Your task to perform on an android device: Go to Android settings Image 0: 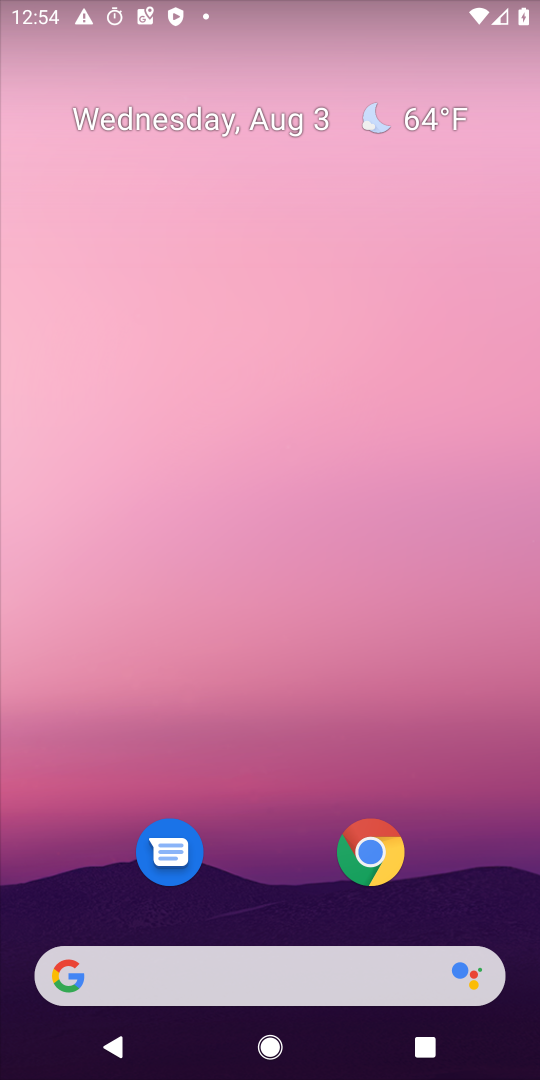
Step 0: drag from (485, 894) to (325, 101)
Your task to perform on an android device: Go to Android settings Image 1: 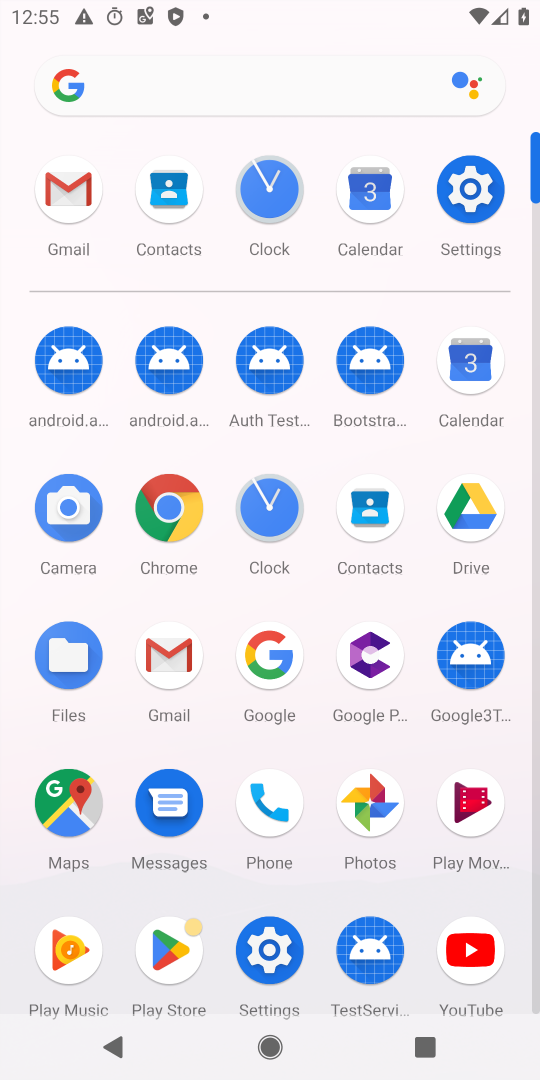
Step 1: click (257, 968)
Your task to perform on an android device: Go to Android settings Image 2: 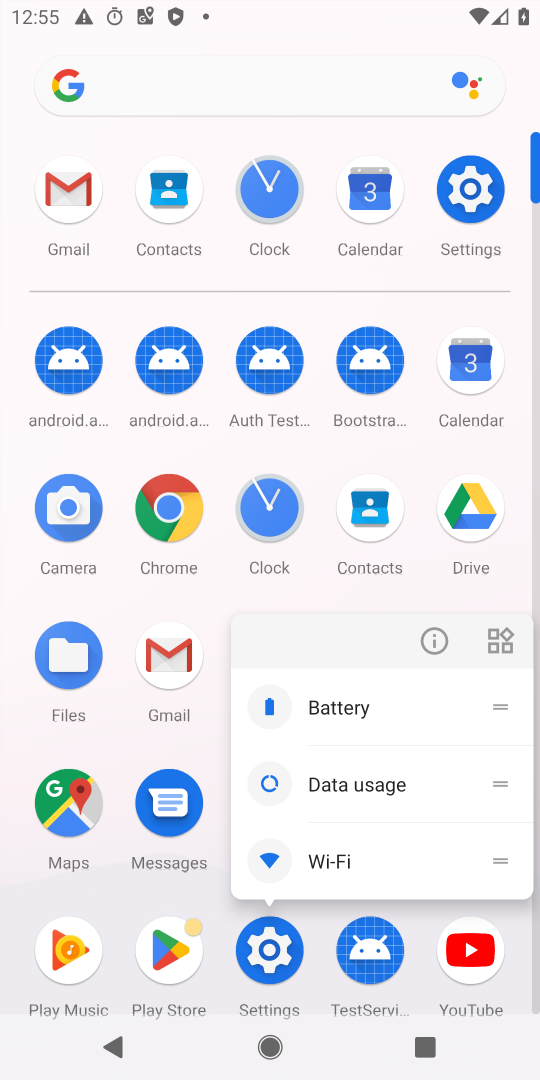
Step 2: click (235, 943)
Your task to perform on an android device: Go to Android settings Image 3: 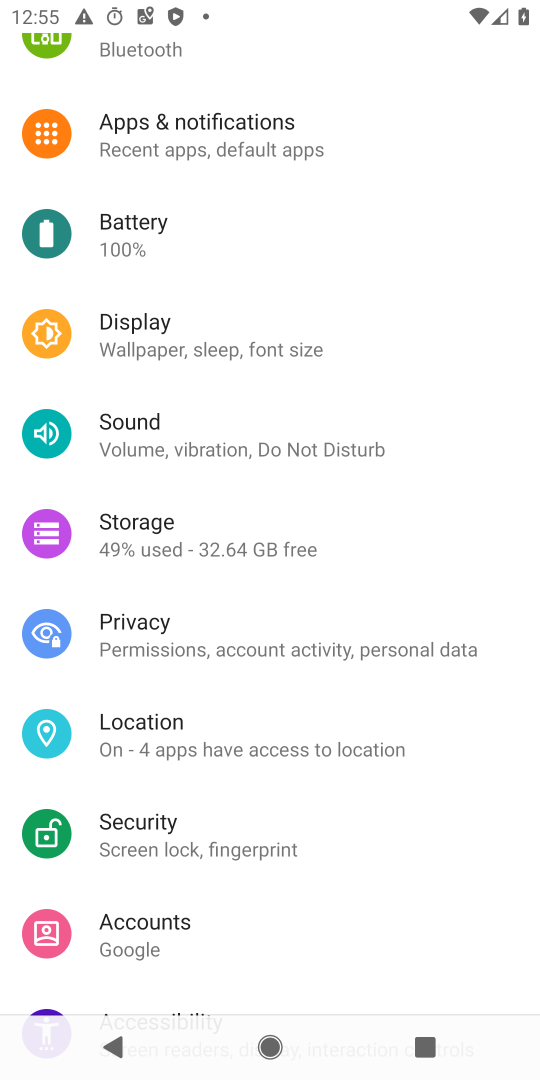
Step 3: drag from (204, 943) to (187, 131)
Your task to perform on an android device: Go to Android settings Image 4: 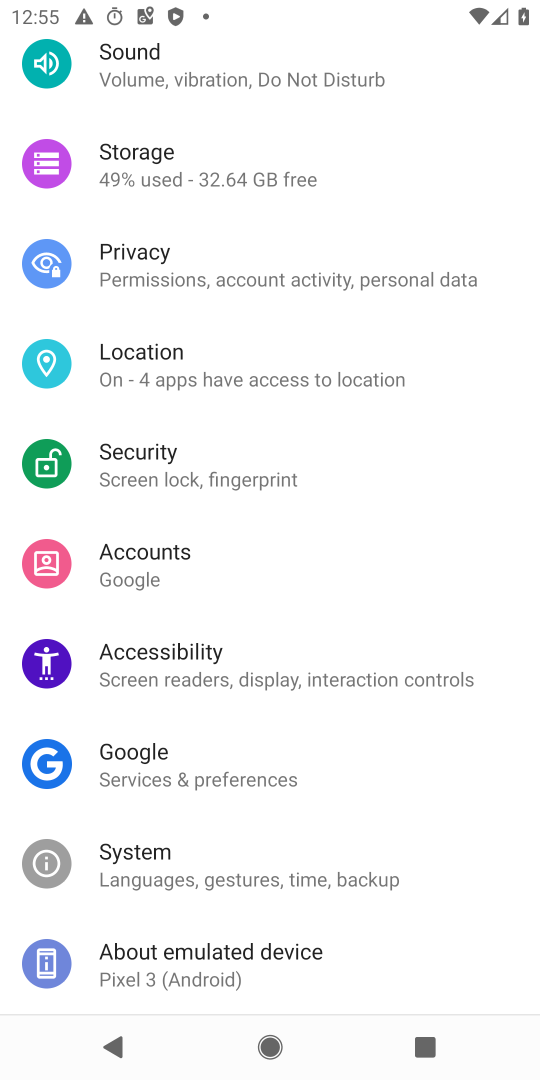
Step 4: click (200, 967)
Your task to perform on an android device: Go to Android settings Image 5: 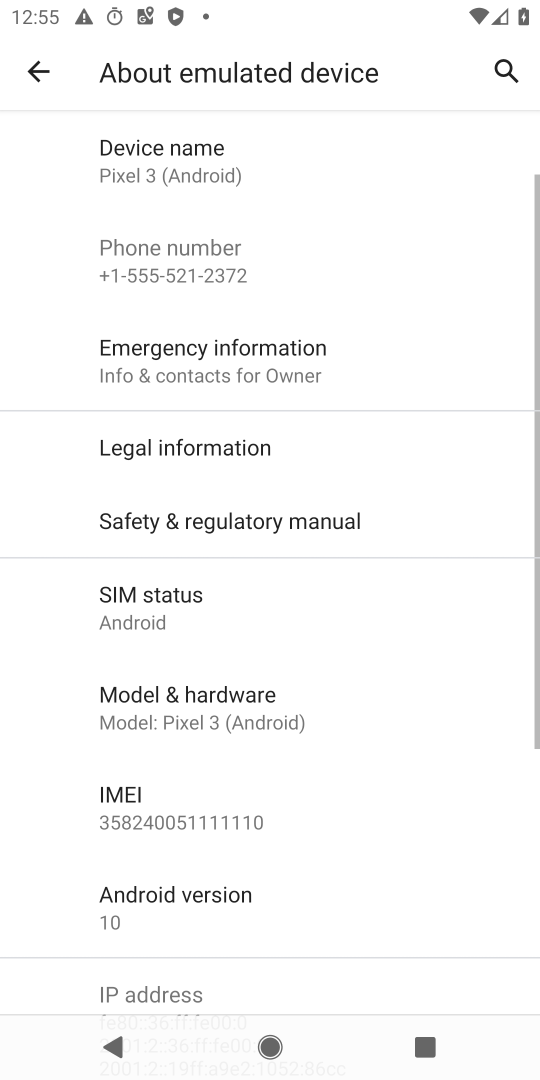
Step 5: task complete